Your task to perform on an android device: open app "HBO Max: Stream TV & Movies" (install if not already installed) Image 0: 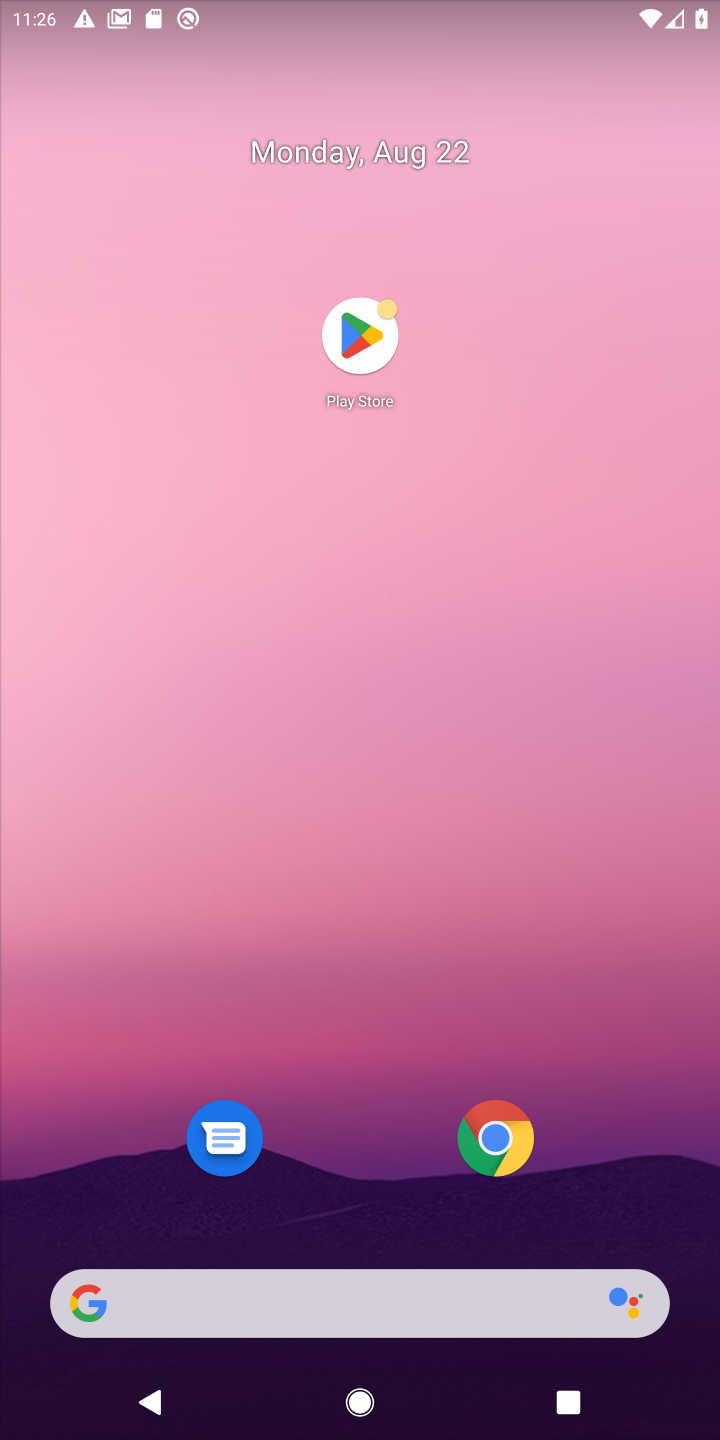
Step 0: click (360, 343)
Your task to perform on an android device: open app "HBO Max: Stream TV & Movies" (install if not already installed) Image 1: 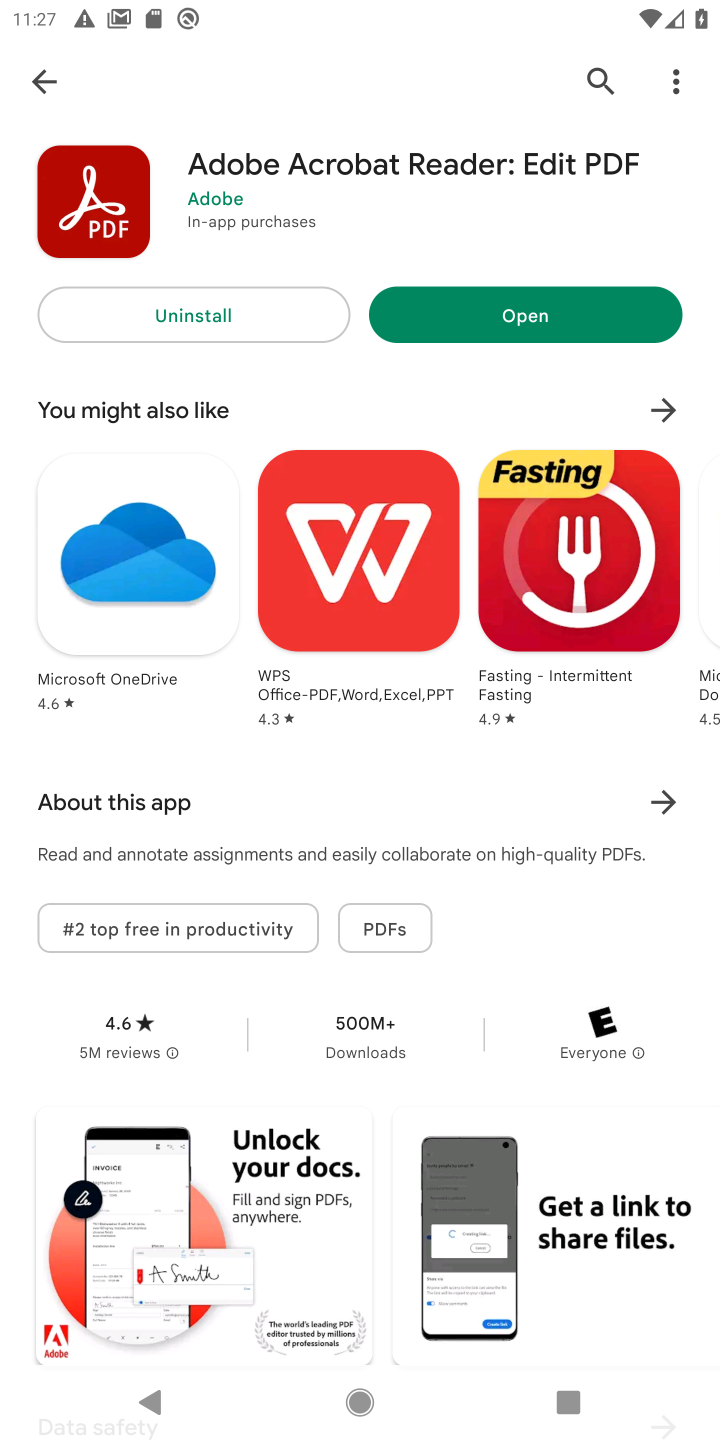
Step 1: click (602, 69)
Your task to perform on an android device: open app "HBO Max: Stream TV & Movies" (install if not already installed) Image 2: 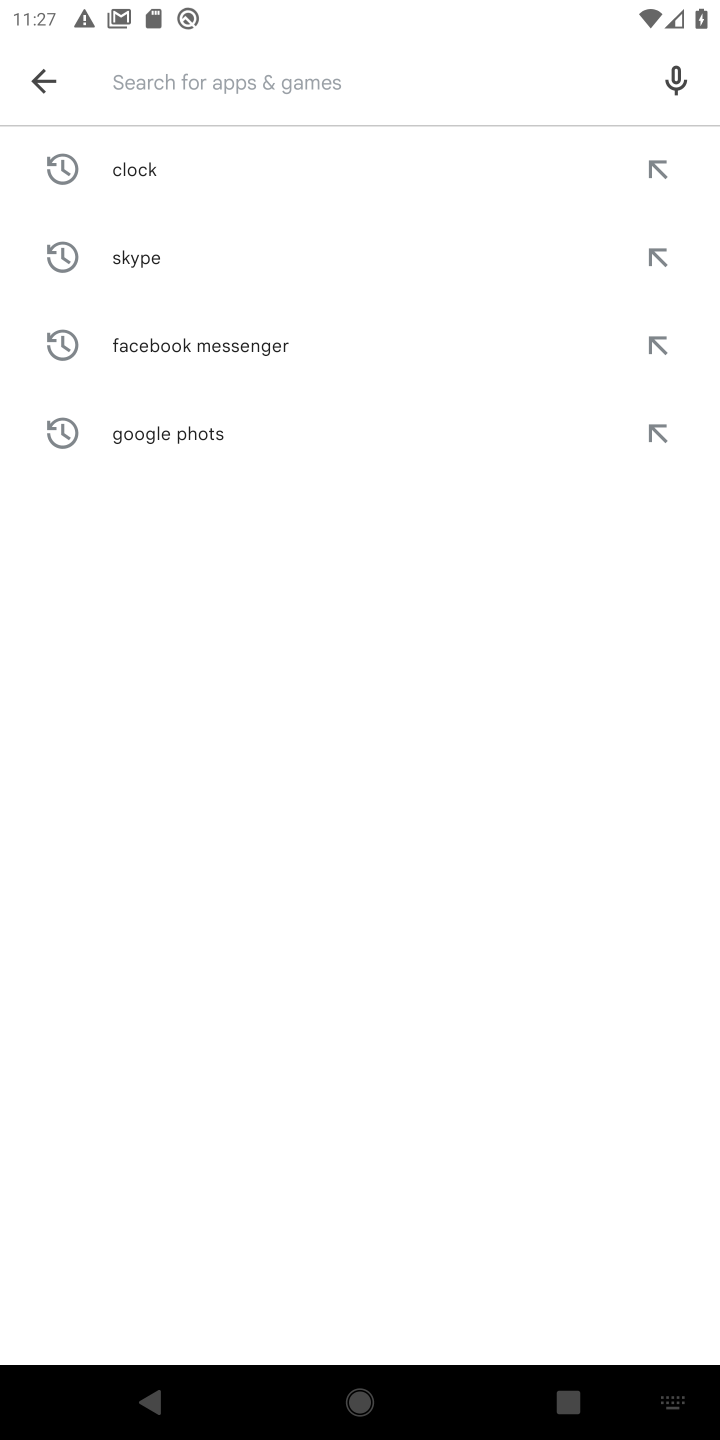
Step 2: click (543, 86)
Your task to perform on an android device: open app "HBO Max: Stream TV & Movies" (install if not already installed) Image 3: 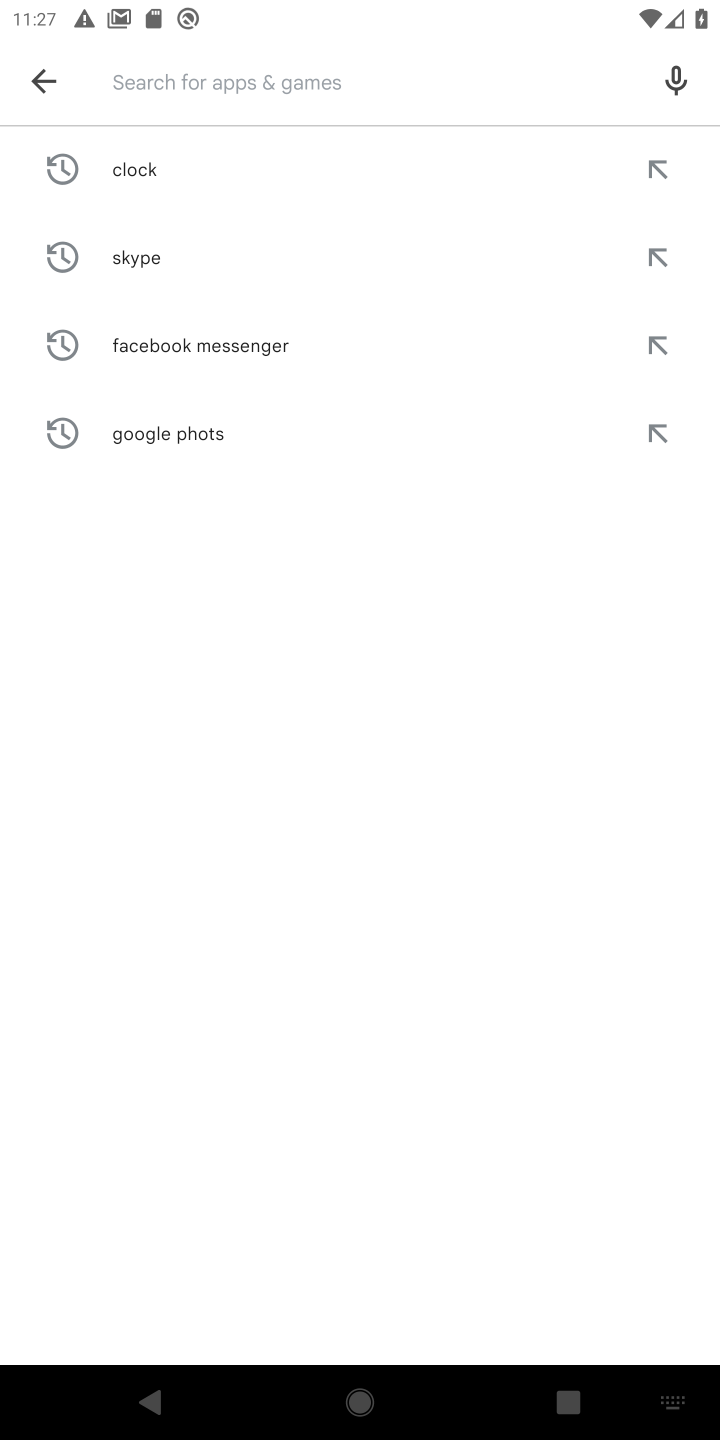
Step 3: type "hbo max"
Your task to perform on an android device: open app "HBO Max: Stream TV & Movies" (install if not already installed) Image 4: 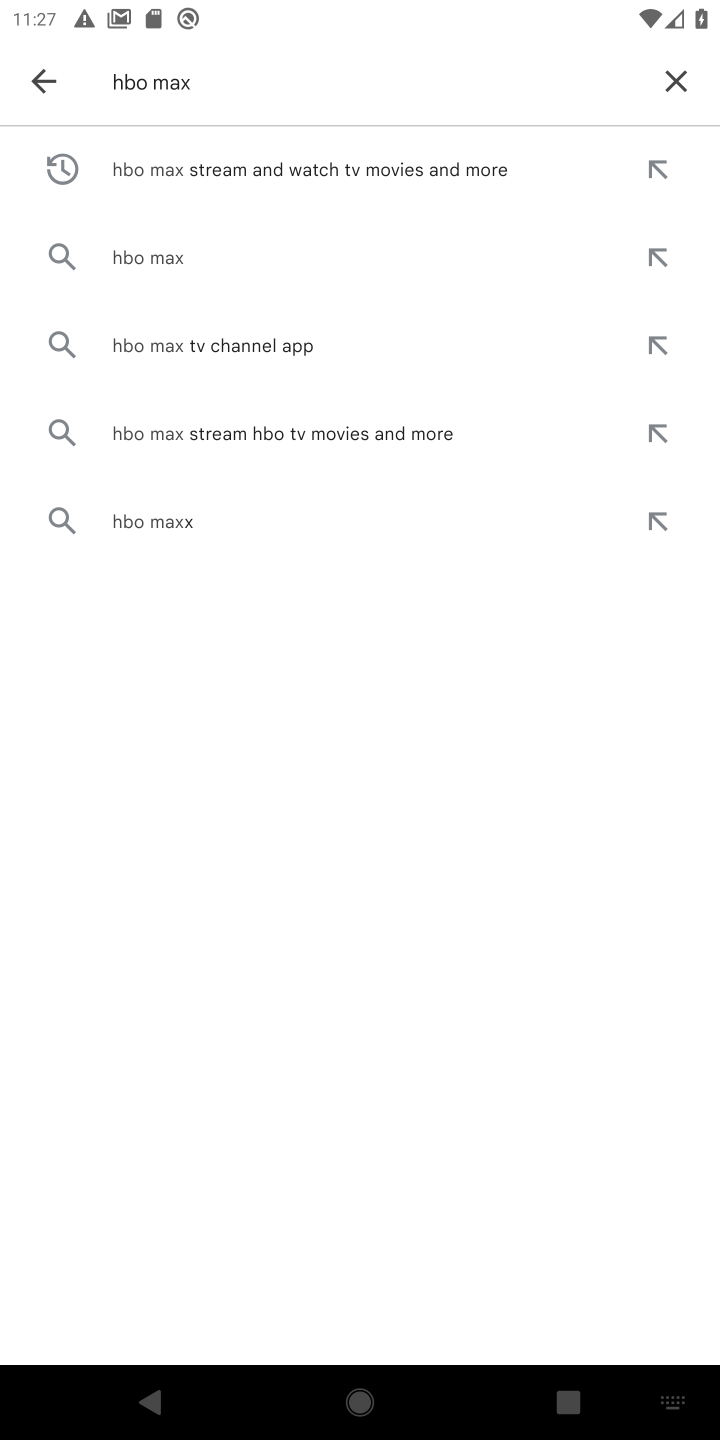
Step 4: click (360, 169)
Your task to perform on an android device: open app "HBO Max: Stream TV & Movies" (install if not already installed) Image 5: 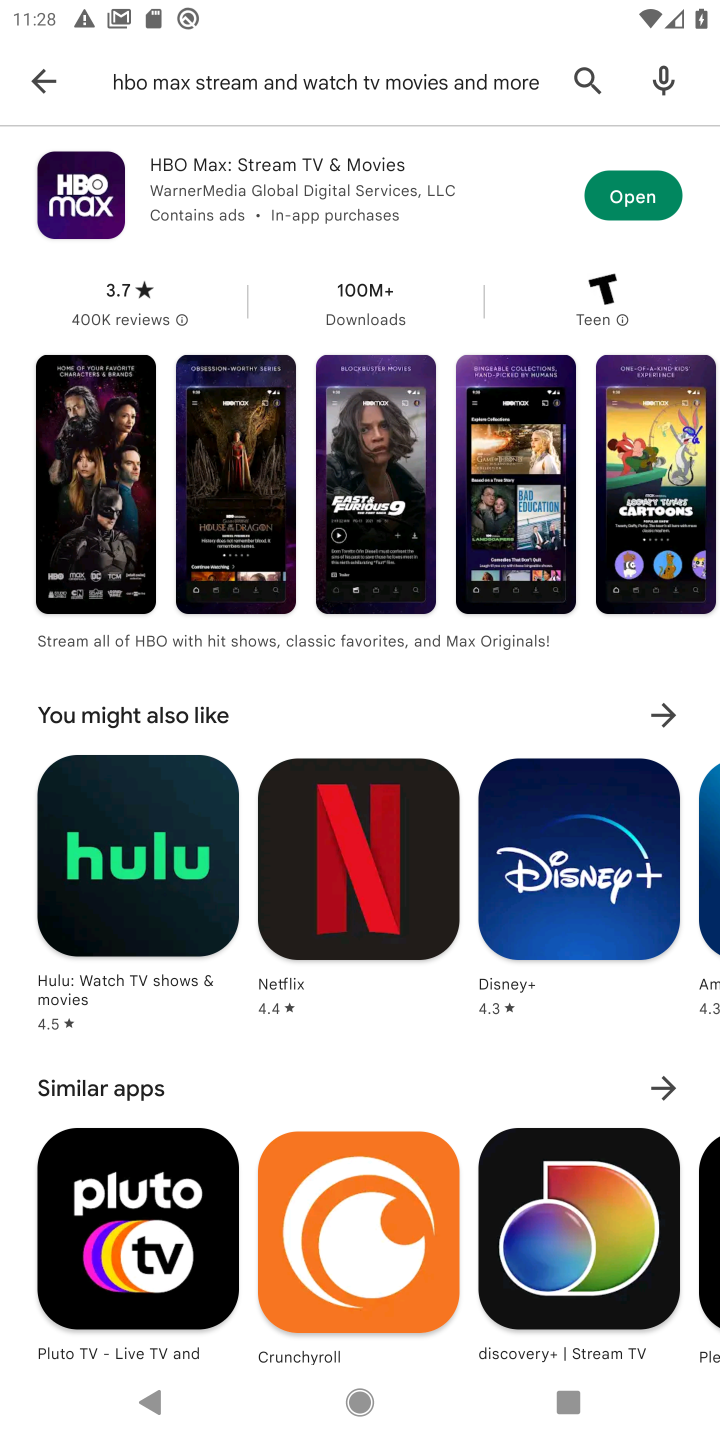
Step 5: click (634, 199)
Your task to perform on an android device: open app "HBO Max: Stream TV & Movies" (install if not already installed) Image 6: 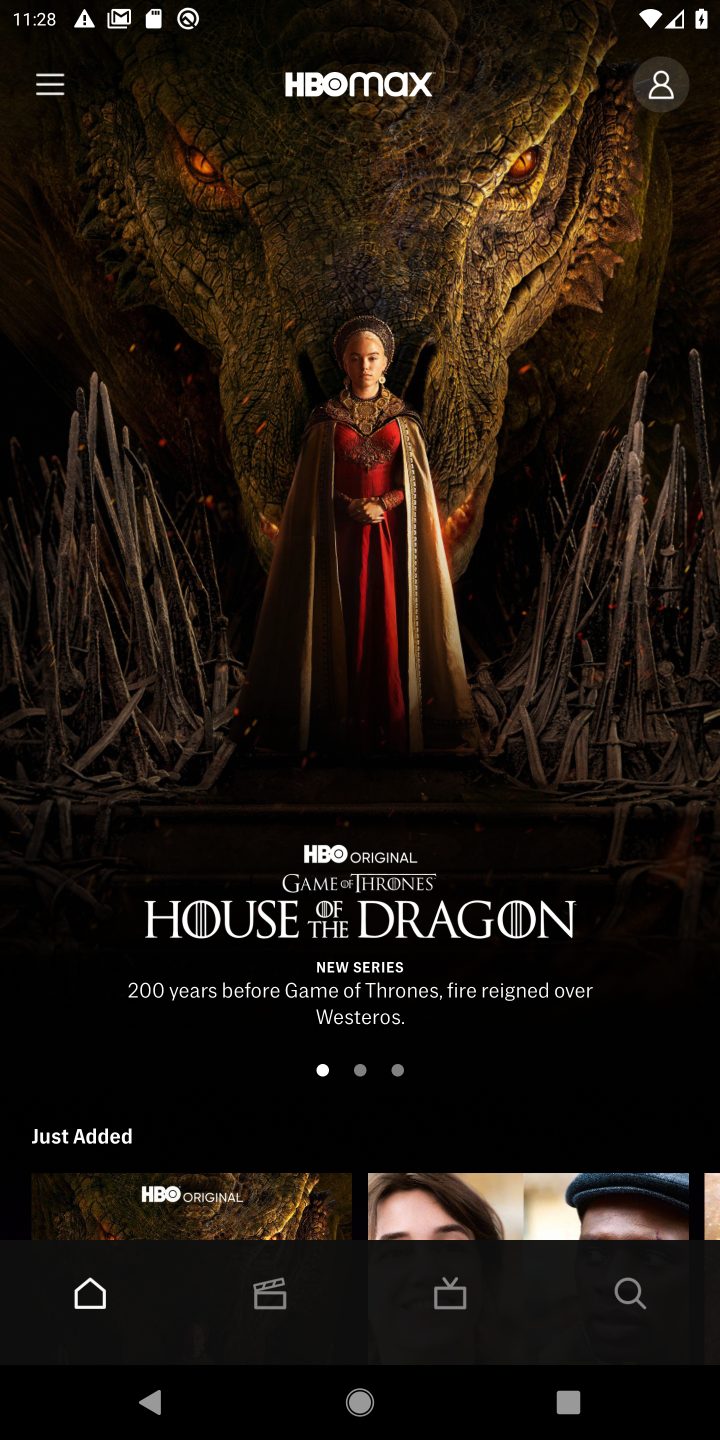
Step 6: task complete